Your task to perform on an android device: see tabs open on other devices in the chrome app Image 0: 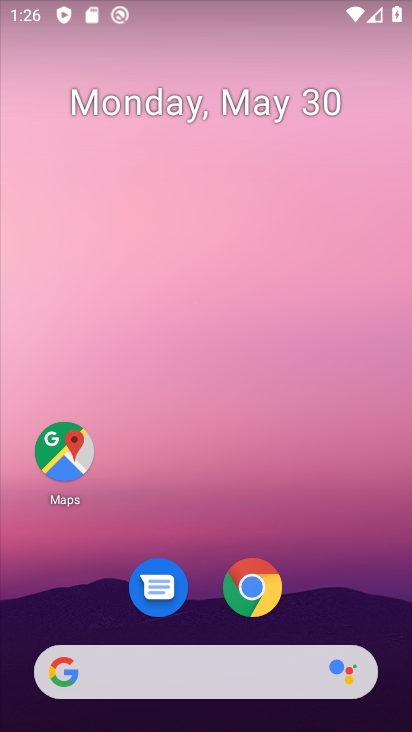
Step 0: click (265, 597)
Your task to perform on an android device: see tabs open on other devices in the chrome app Image 1: 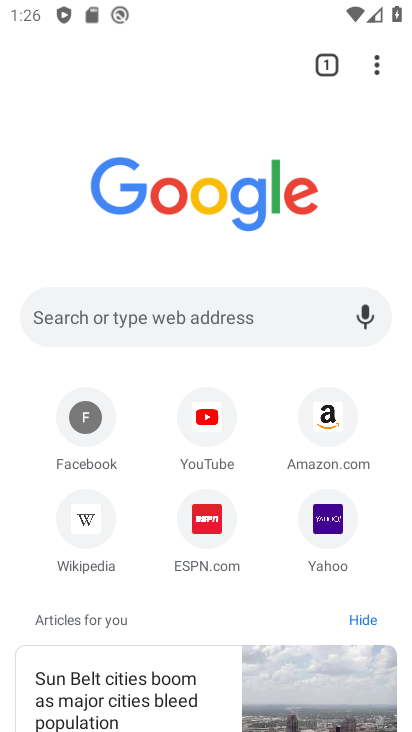
Step 1: click (377, 72)
Your task to perform on an android device: see tabs open on other devices in the chrome app Image 2: 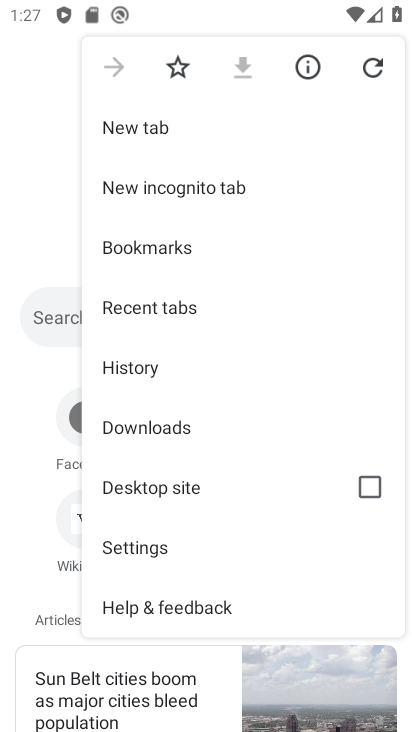
Step 2: click (187, 314)
Your task to perform on an android device: see tabs open on other devices in the chrome app Image 3: 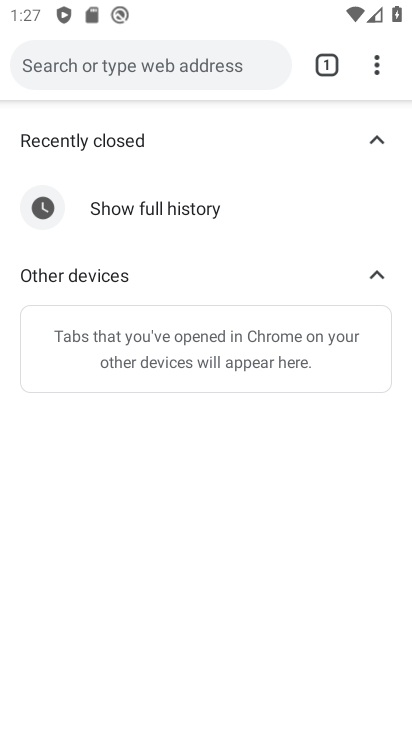
Step 3: click (279, 362)
Your task to perform on an android device: see tabs open on other devices in the chrome app Image 4: 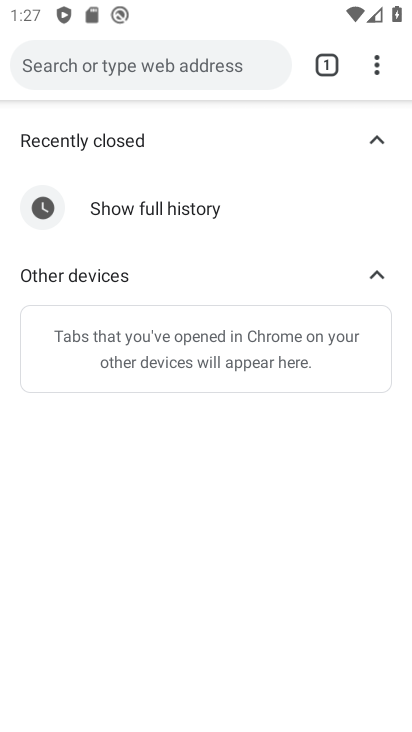
Step 4: task complete